Your task to perform on an android device: Go to sound settings Image 0: 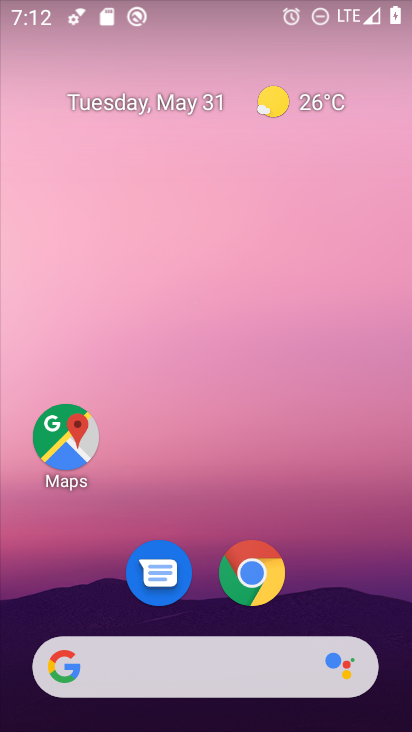
Step 0: drag from (406, 633) to (320, 119)
Your task to perform on an android device: Go to sound settings Image 1: 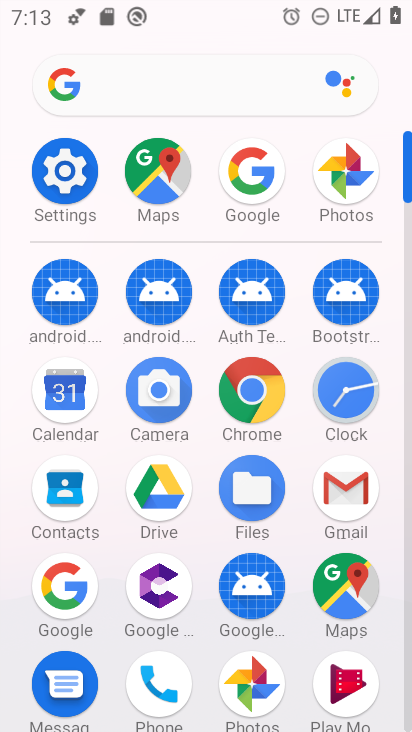
Step 1: click (65, 173)
Your task to perform on an android device: Go to sound settings Image 2: 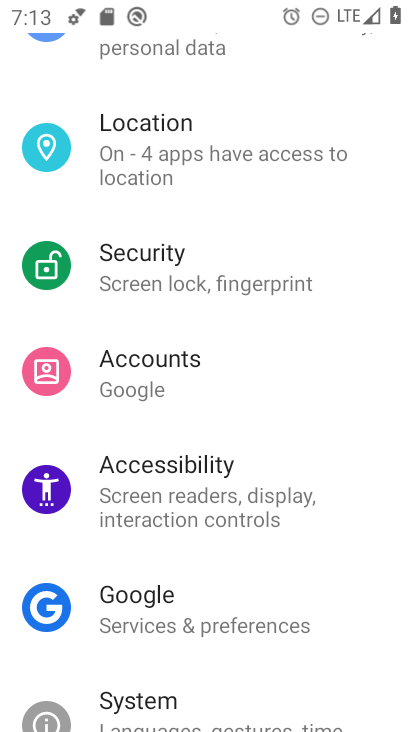
Step 2: drag from (222, 206) to (287, 656)
Your task to perform on an android device: Go to sound settings Image 3: 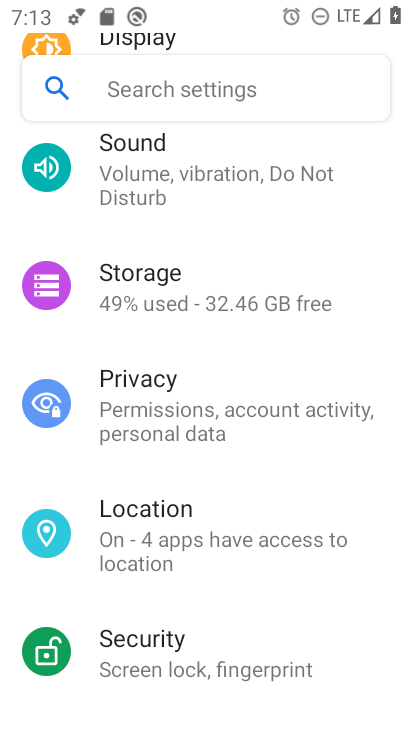
Step 3: click (180, 213)
Your task to perform on an android device: Go to sound settings Image 4: 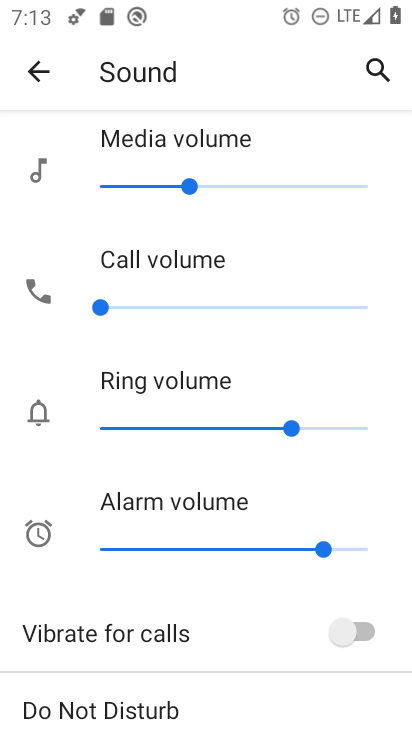
Step 4: task complete